Your task to perform on an android device: open a bookmark in the chrome app Image 0: 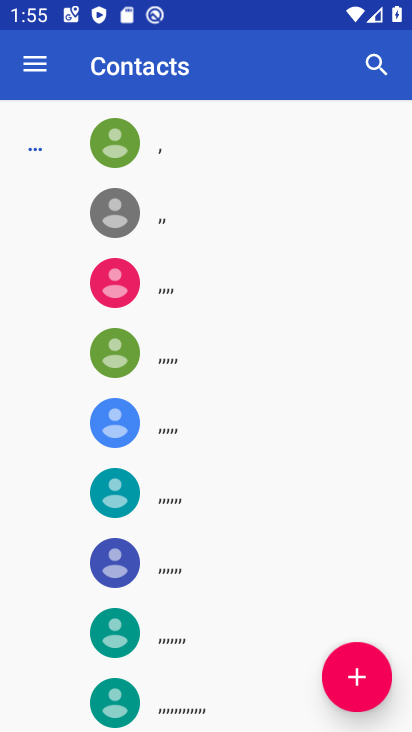
Step 0: press home button
Your task to perform on an android device: open a bookmark in the chrome app Image 1: 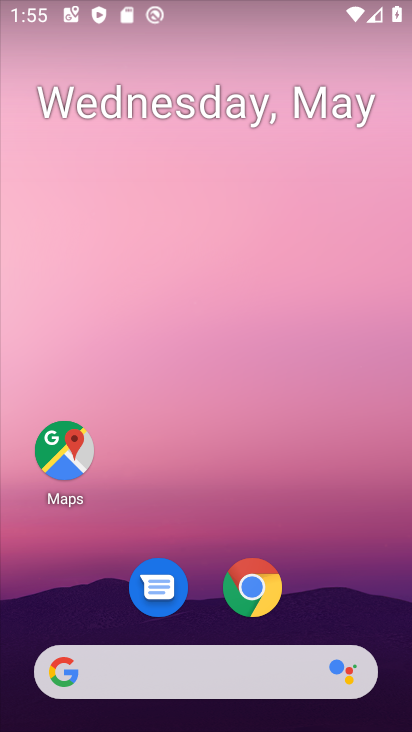
Step 1: click (232, 583)
Your task to perform on an android device: open a bookmark in the chrome app Image 2: 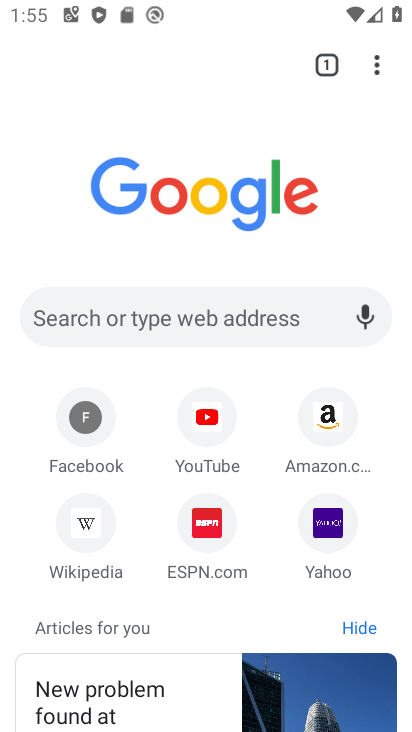
Step 2: task complete